Your task to perform on an android device: What is the news today? Image 0: 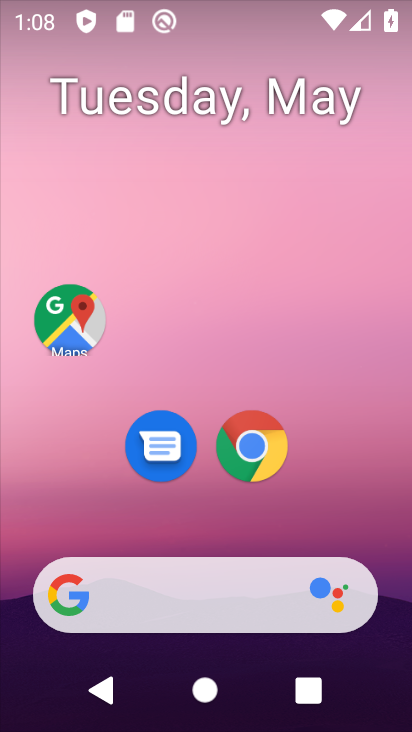
Step 0: click (204, 565)
Your task to perform on an android device: What is the news today? Image 1: 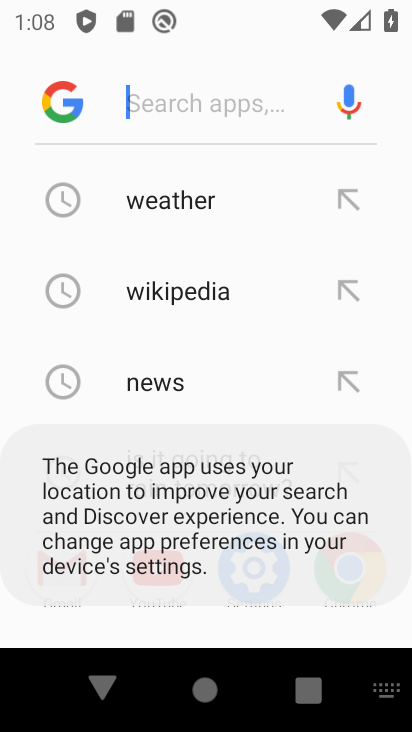
Step 1: click (173, 393)
Your task to perform on an android device: What is the news today? Image 2: 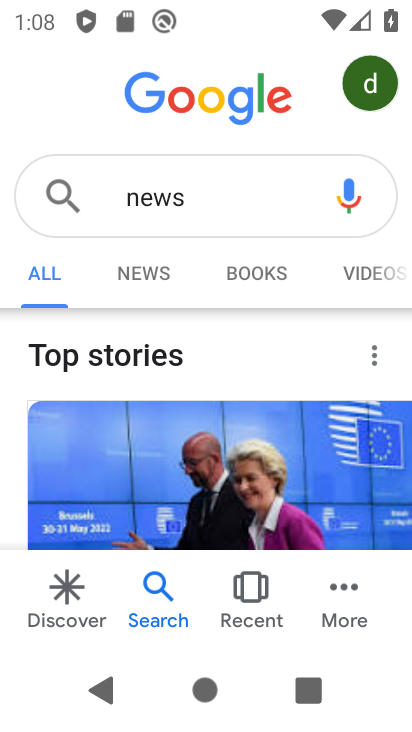
Step 2: click (122, 281)
Your task to perform on an android device: What is the news today? Image 3: 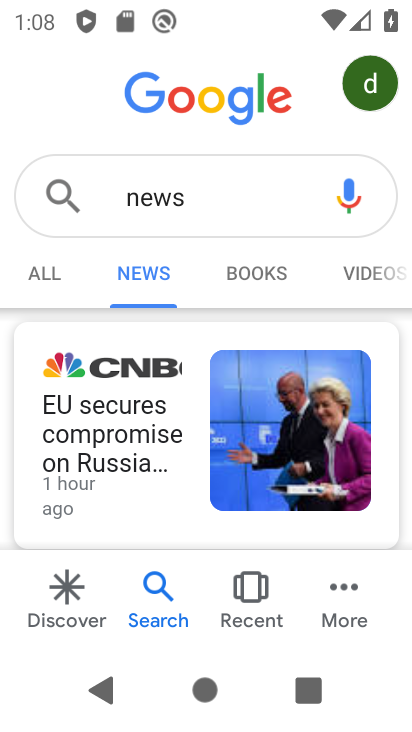
Step 3: task complete